Your task to perform on an android device: turn off location Image 0: 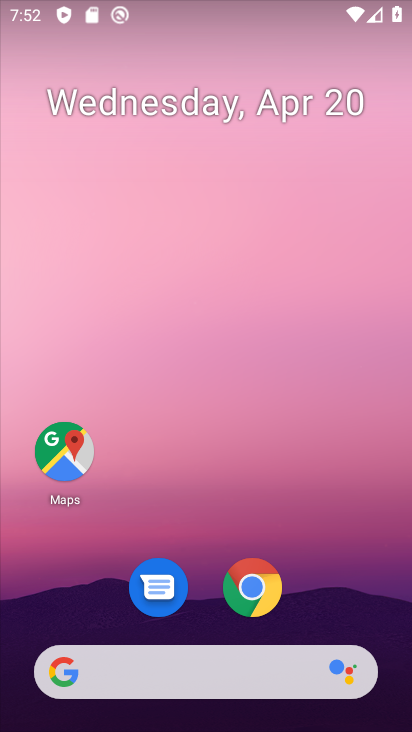
Step 0: drag from (357, 579) to (357, 165)
Your task to perform on an android device: turn off location Image 1: 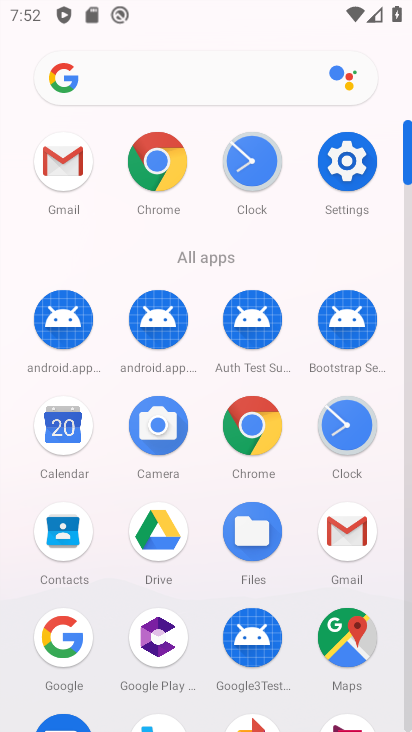
Step 1: click (345, 165)
Your task to perform on an android device: turn off location Image 2: 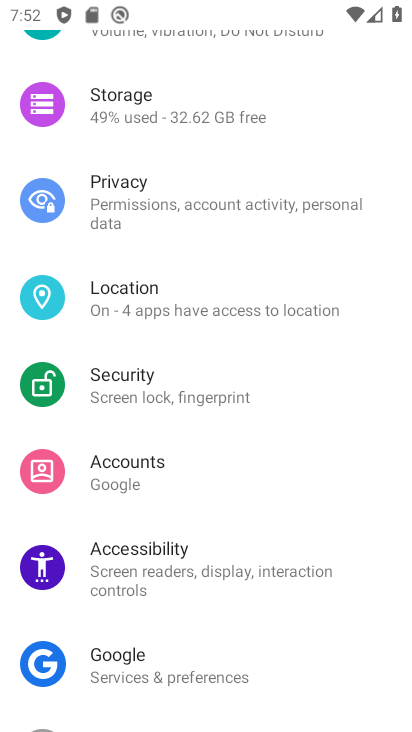
Step 2: drag from (357, 518) to (376, 314)
Your task to perform on an android device: turn off location Image 3: 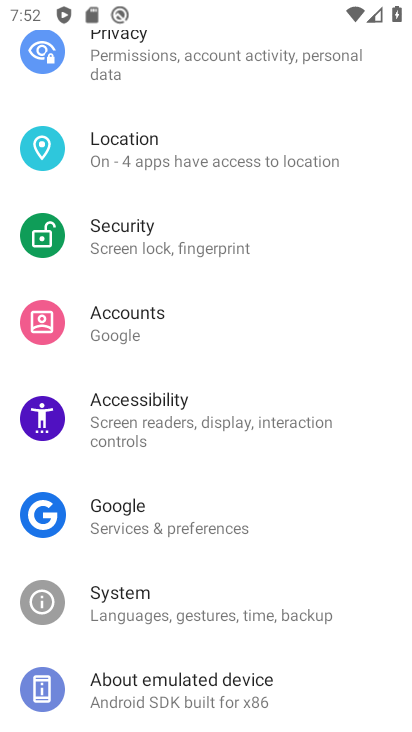
Step 3: drag from (364, 558) to (364, 333)
Your task to perform on an android device: turn off location Image 4: 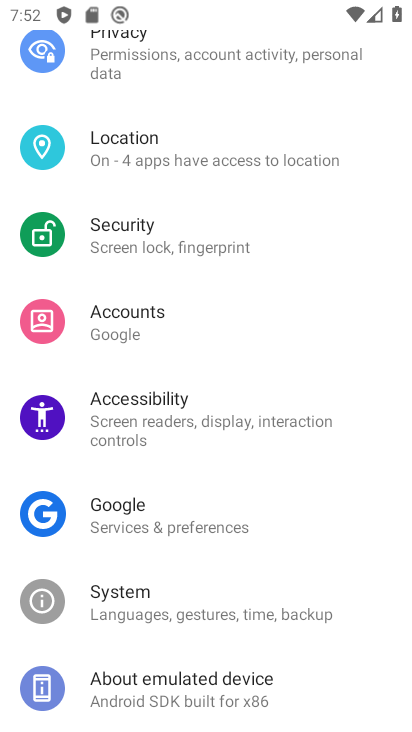
Step 4: drag from (369, 262) to (349, 462)
Your task to perform on an android device: turn off location Image 5: 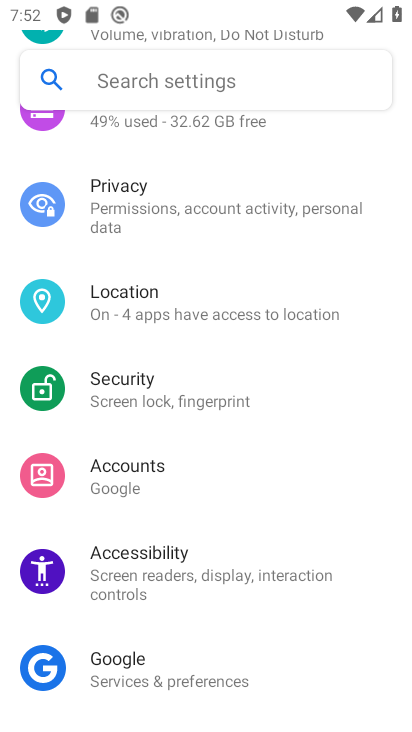
Step 5: drag from (366, 279) to (371, 453)
Your task to perform on an android device: turn off location Image 6: 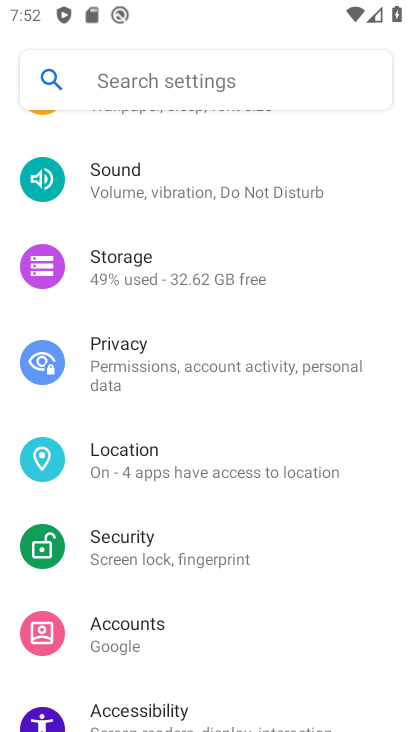
Step 6: drag from (383, 248) to (372, 418)
Your task to perform on an android device: turn off location Image 7: 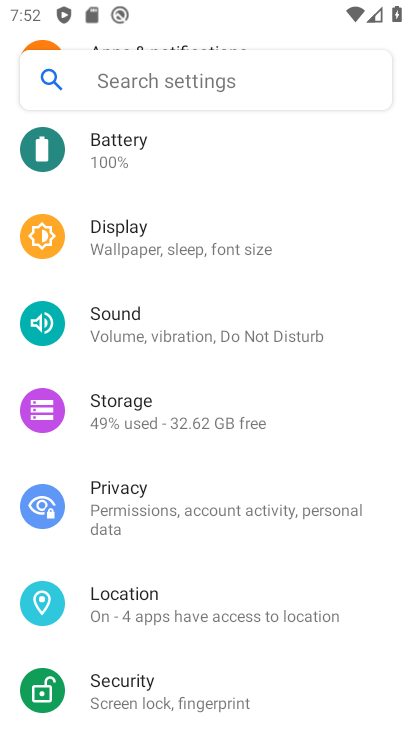
Step 7: drag from (381, 207) to (376, 392)
Your task to perform on an android device: turn off location Image 8: 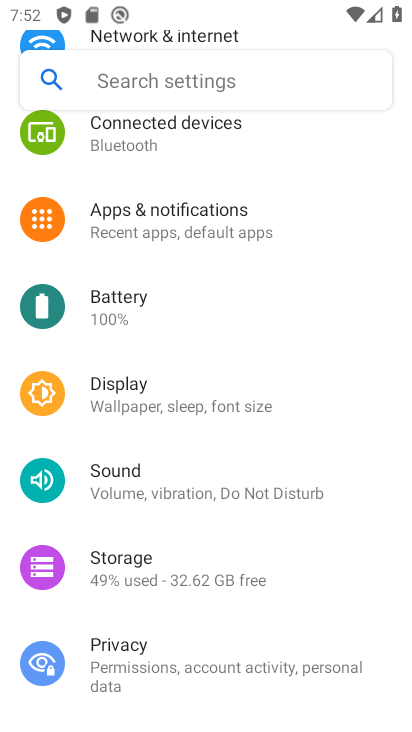
Step 8: drag from (373, 226) to (368, 441)
Your task to perform on an android device: turn off location Image 9: 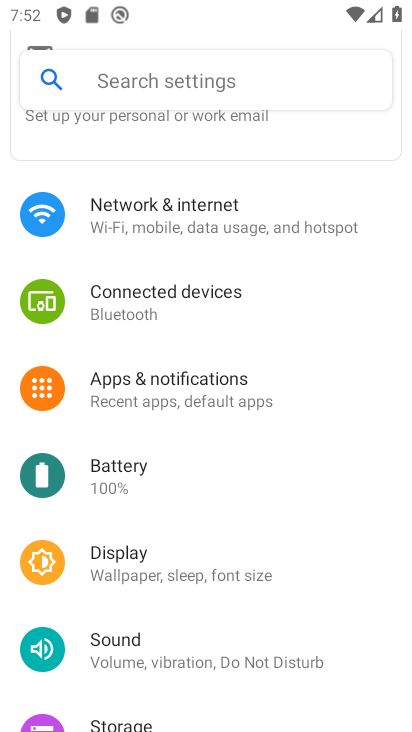
Step 9: drag from (358, 489) to (377, 305)
Your task to perform on an android device: turn off location Image 10: 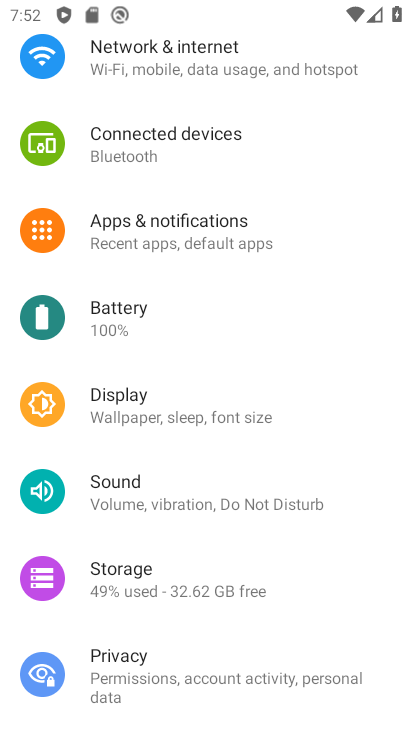
Step 10: drag from (355, 523) to (359, 310)
Your task to perform on an android device: turn off location Image 11: 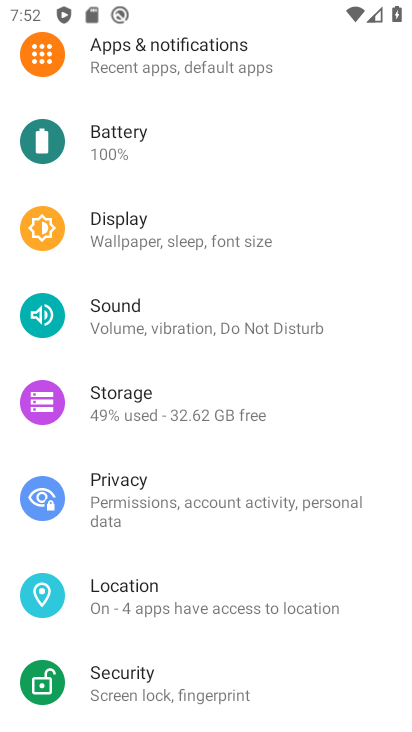
Step 11: drag from (362, 555) to (368, 354)
Your task to perform on an android device: turn off location Image 12: 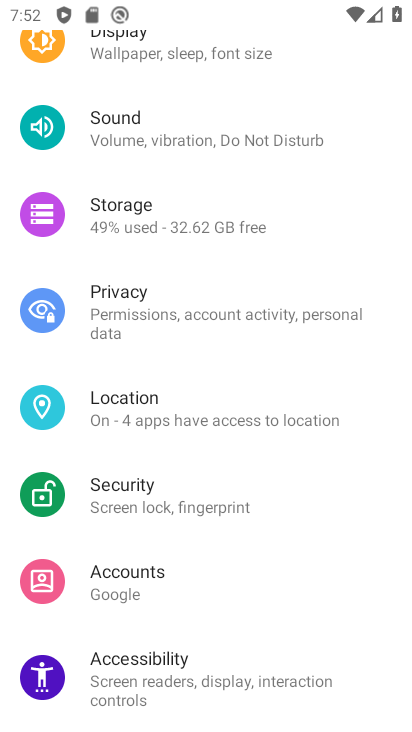
Step 12: click (296, 422)
Your task to perform on an android device: turn off location Image 13: 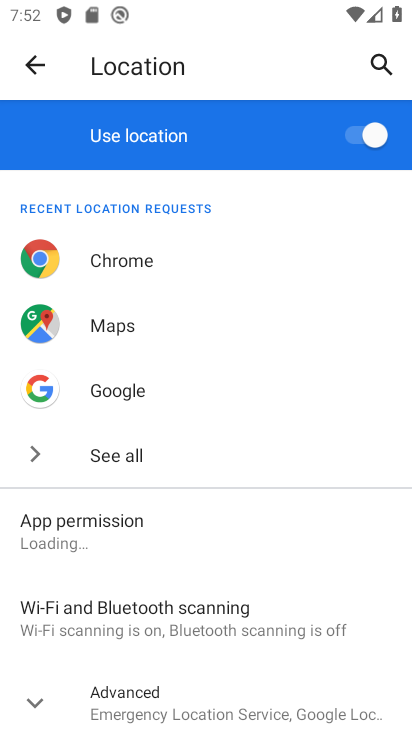
Step 13: click (374, 136)
Your task to perform on an android device: turn off location Image 14: 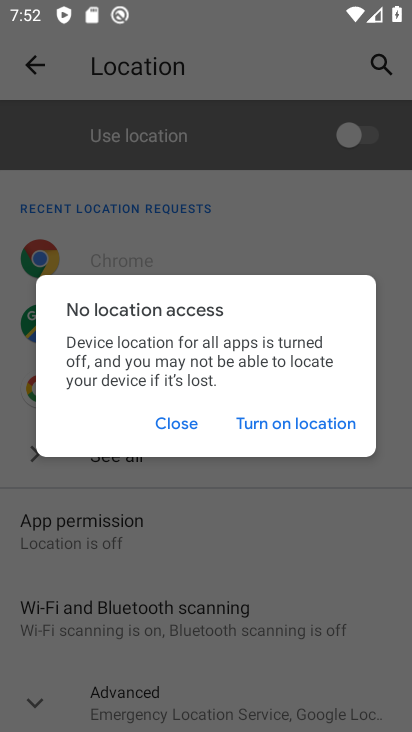
Step 14: task complete